Your task to perform on an android device: Search for a 3d printer on aliexpress Image 0: 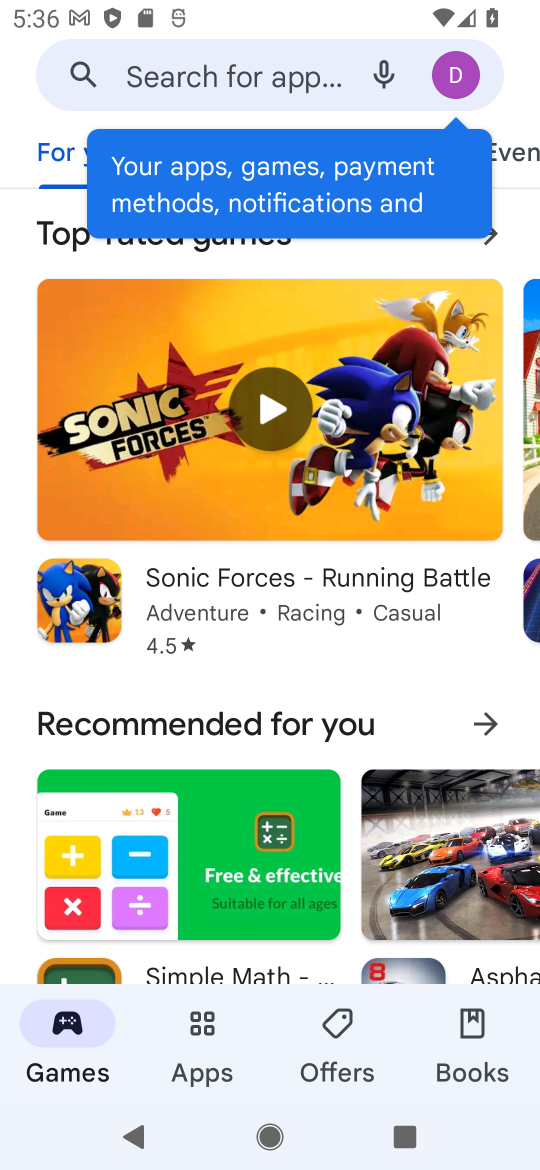
Step 0: press home button
Your task to perform on an android device: Search for a 3d printer on aliexpress Image 1: 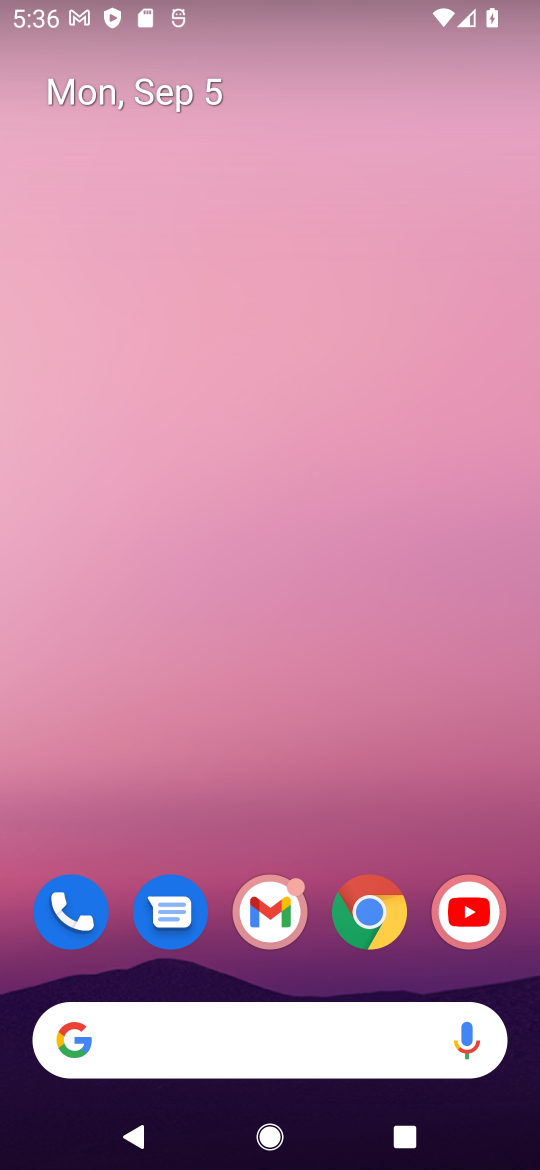
Step 1: click (381, 924)
Your task to perform on an android device: Search for a 3d printer on aliexpress Image 2: 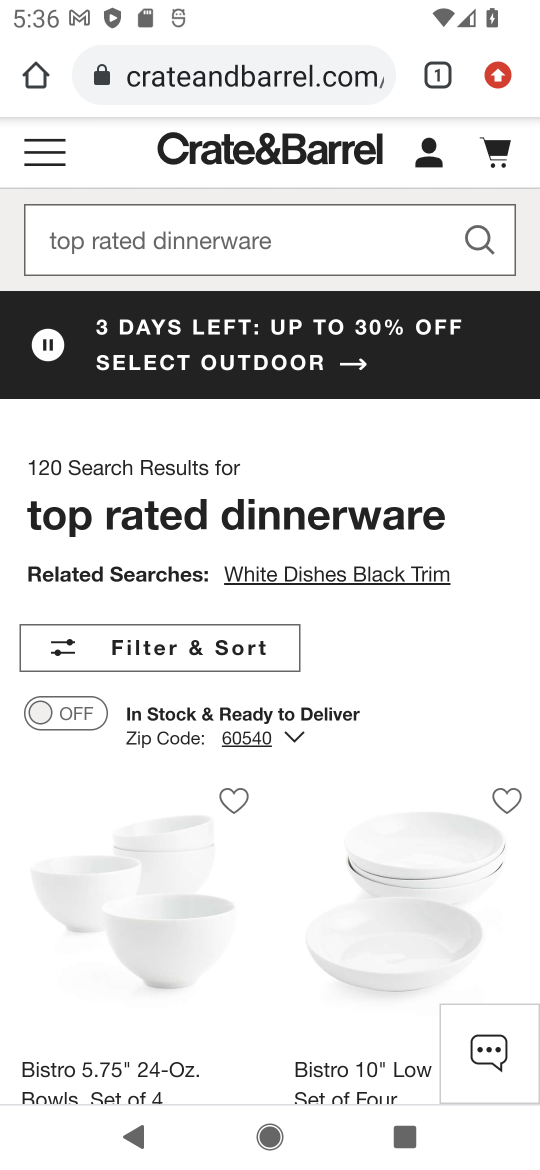
Step 2: click (283, 77)
Your task to perform on an android device: Search for a 3d printer on aliexpress Image 3: 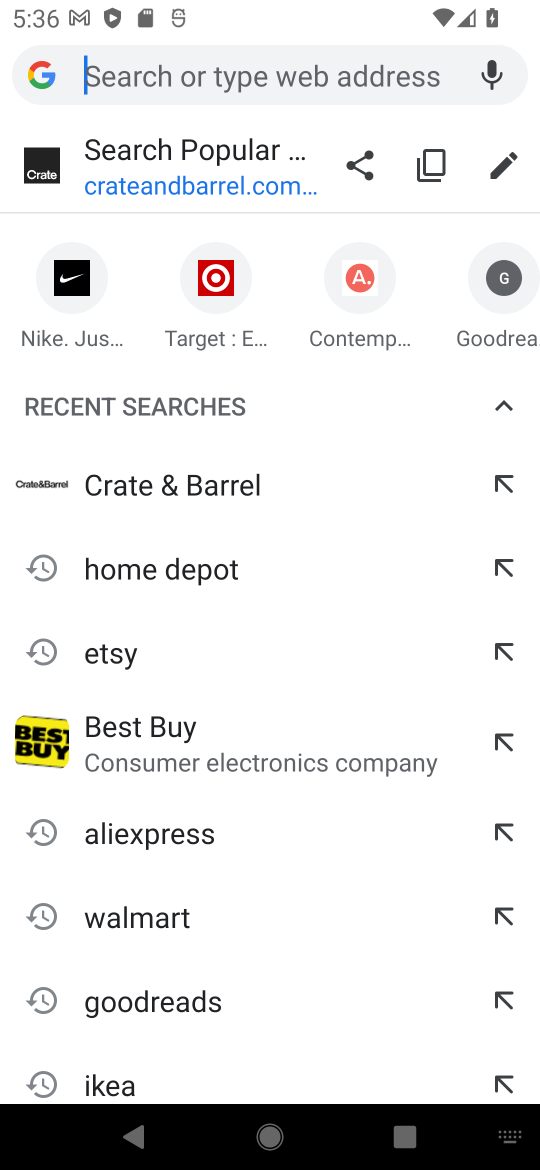
Step 3: type "aliexpress"
Your task to perform on an android device: Search for a 3d printer on aliexpress Image 4: 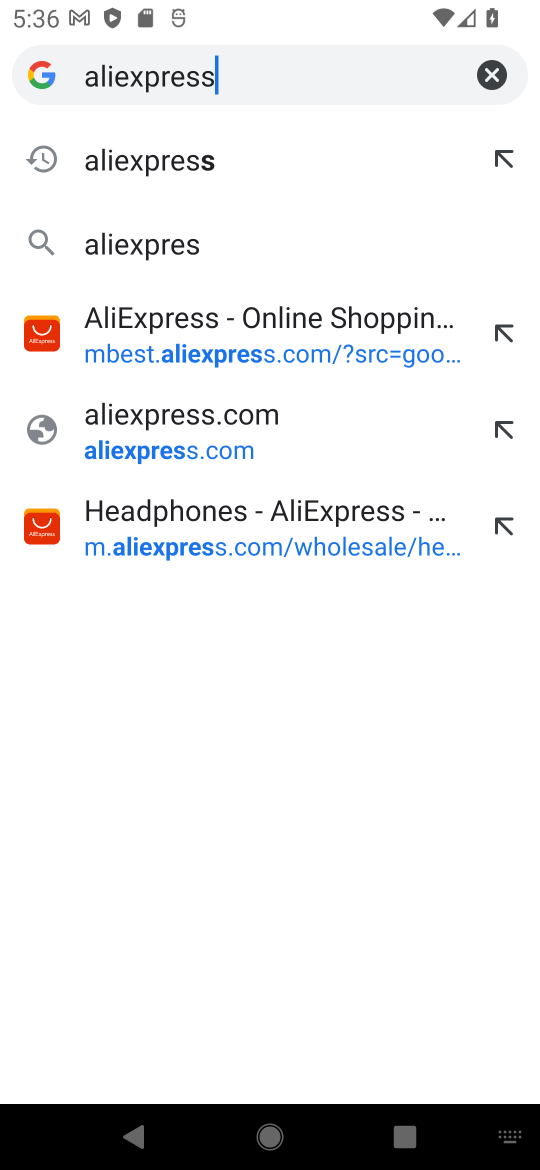
Step 4: type ""
Your task to perform on an android device: Search for a 3d printer on aliexpress Image 5: 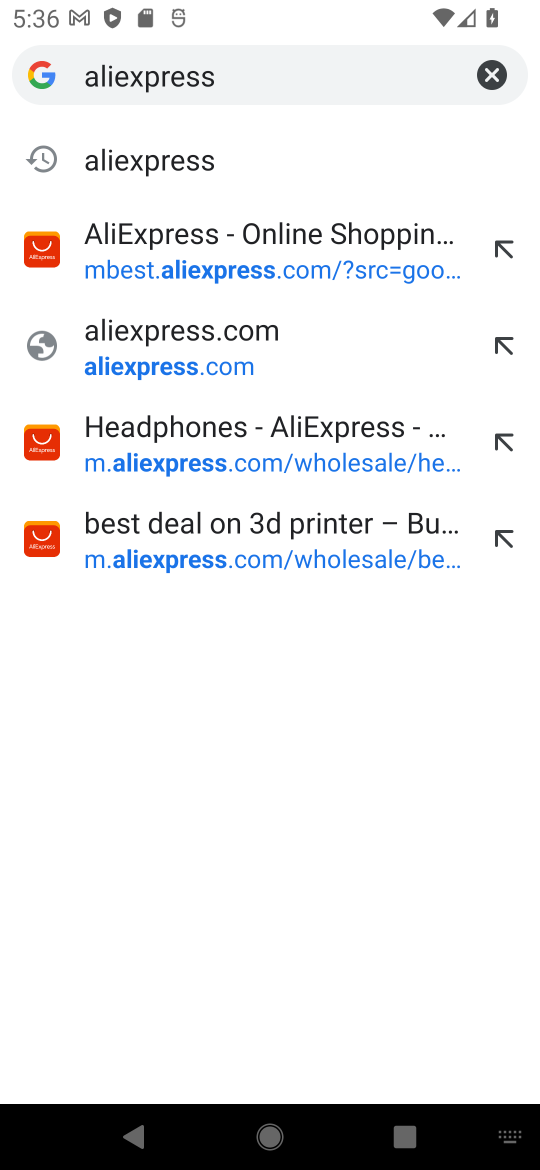
Step 5: click (264, 177)
Your task to perform on an android device: Search for a 3d printer on aliexpress Image 6: 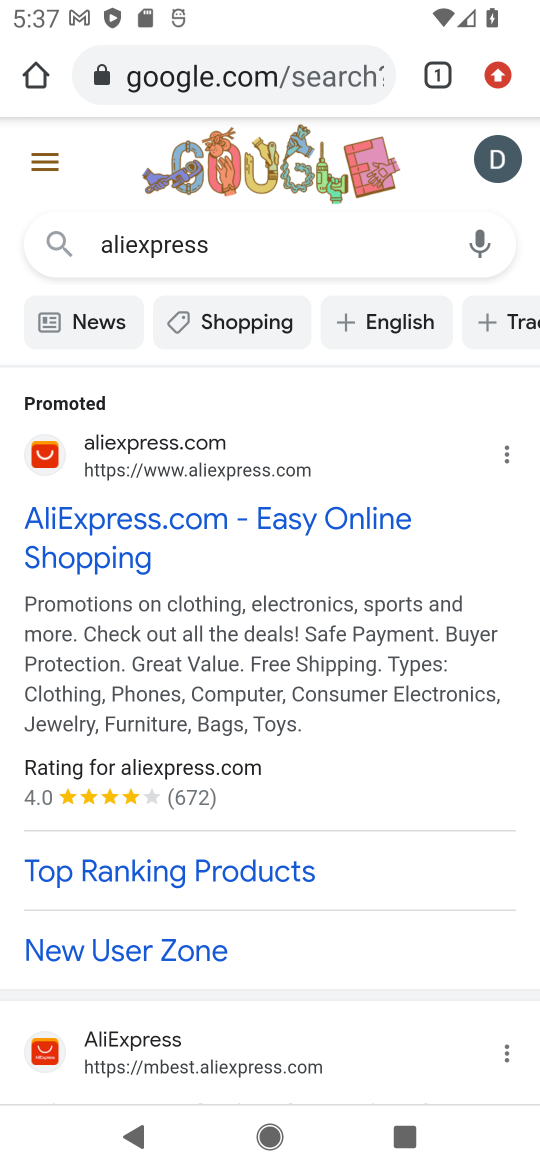
Step 6: click (123, 527)
Your task to perform on an android device: Search for a 3d printer on aliexpress Image 7: 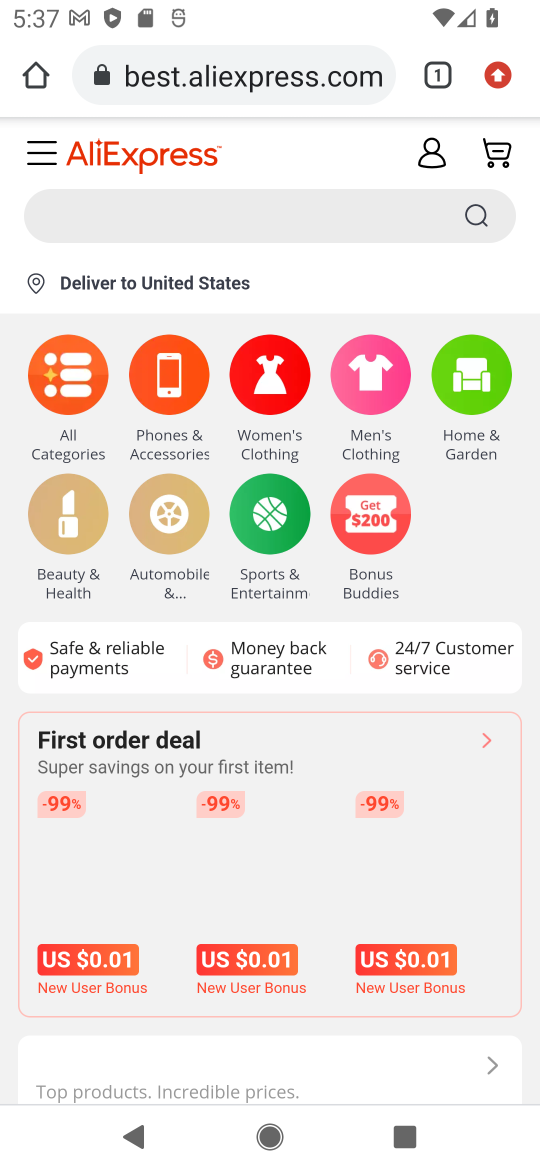
Step 7: click (270, 219)
Your task to perform on an android device: Search for a 3d printer on aliexpress Image 8: 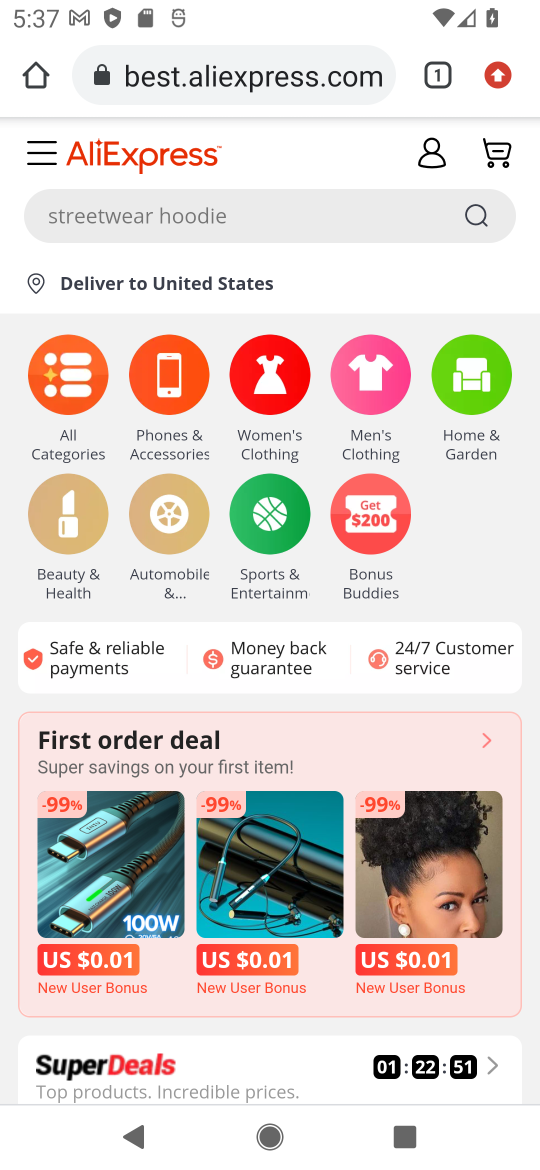
Step 8: click (270, 219)
Your task to perform on an android device: Search for a 3d printer on aliexpress Image 9: 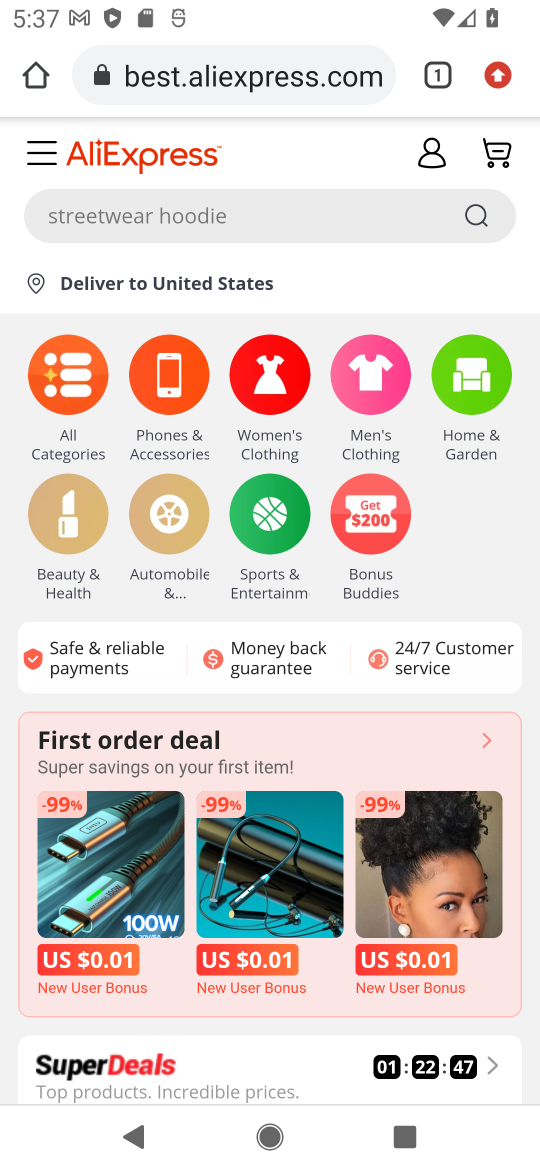
Step 9: click (289, 207)
Your task to perform on an android device: Search for a 3d printer on aliexpress Image 10: 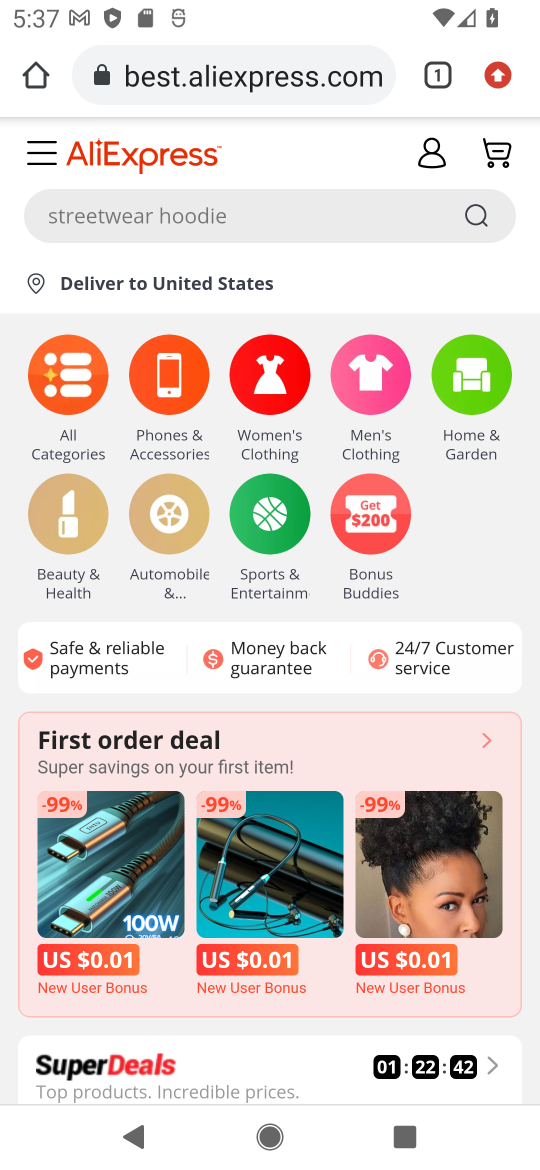
Step 10: click (353, 215)
Your task to perform on an android device: Search for a 3d printer on aliexpress Image 11: 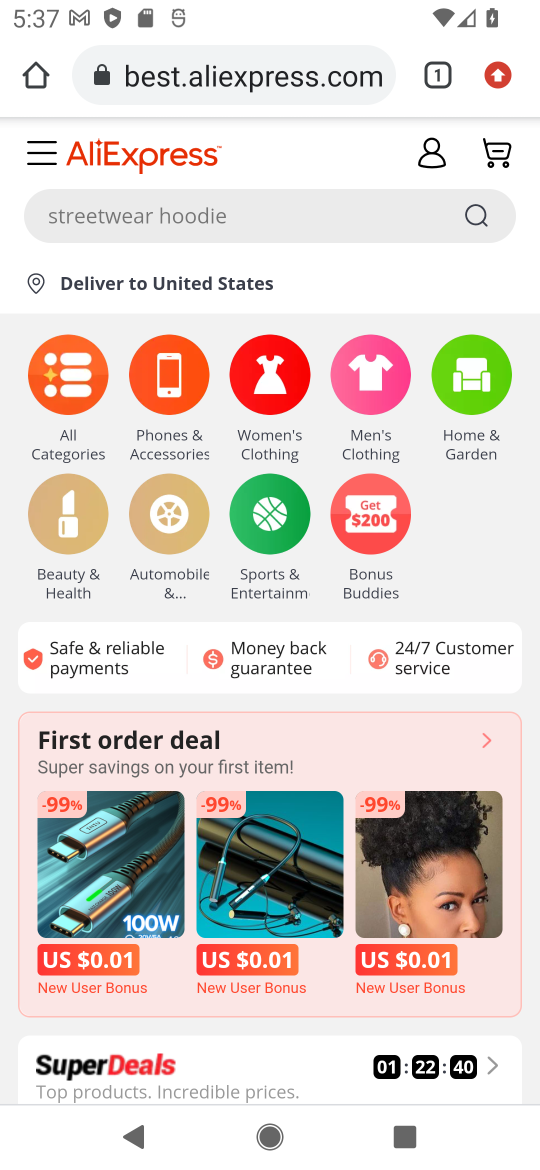
Step 11: drag from (396, 510) to (403, 595)
Your task to perform on an android device: Search for a 3d printer on aliexpress Image 12: 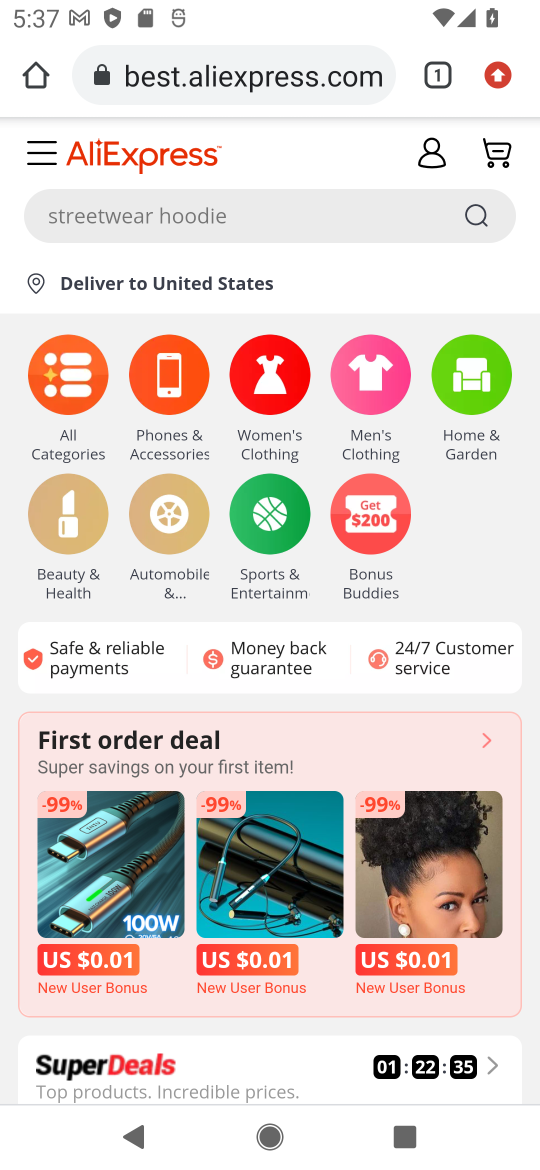
Step 12: click (358, 202)
Your task to perform on an android device: Search for a 3d printer on aliexpress Image 13: 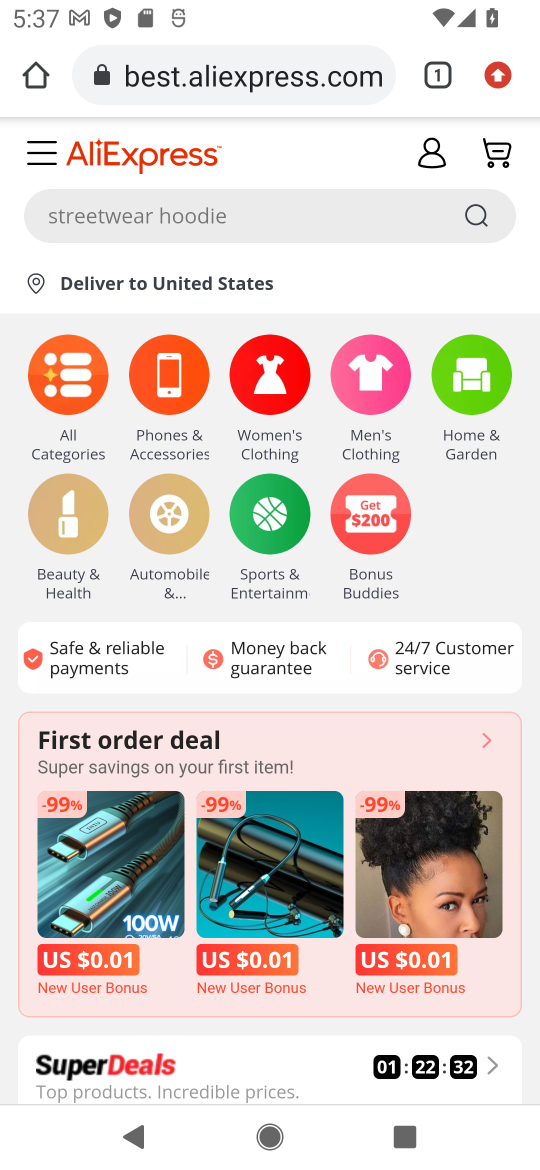
Step 13: click (65, 212)
Your task to perform on an android device: Search for a 3d printer on aliexpress Image 14: 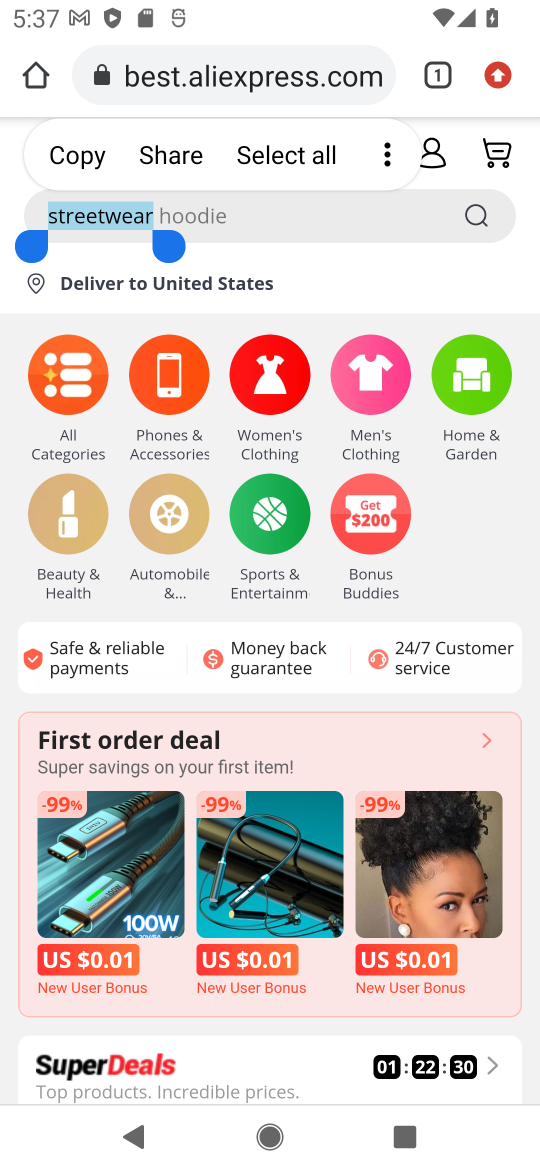
Step 14: click (250, 219)
Your task to perform on an android device: Search for a 3d printer on aliexpress Image 15: 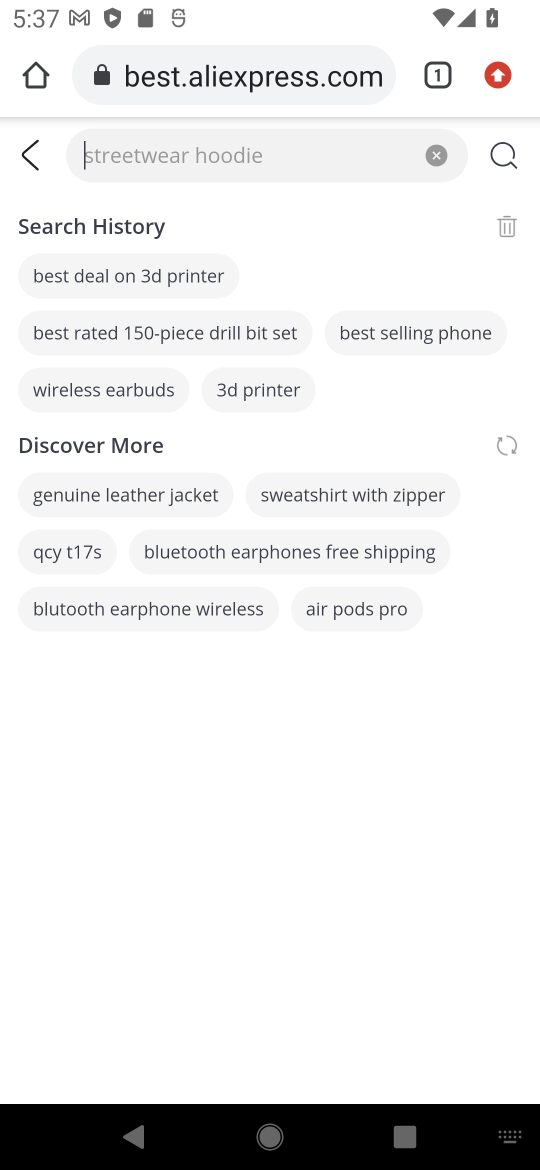
Step 15: type "3d printer"
Your task to perform on an android device: Search for a 3d printer on aliexpress Image 16: 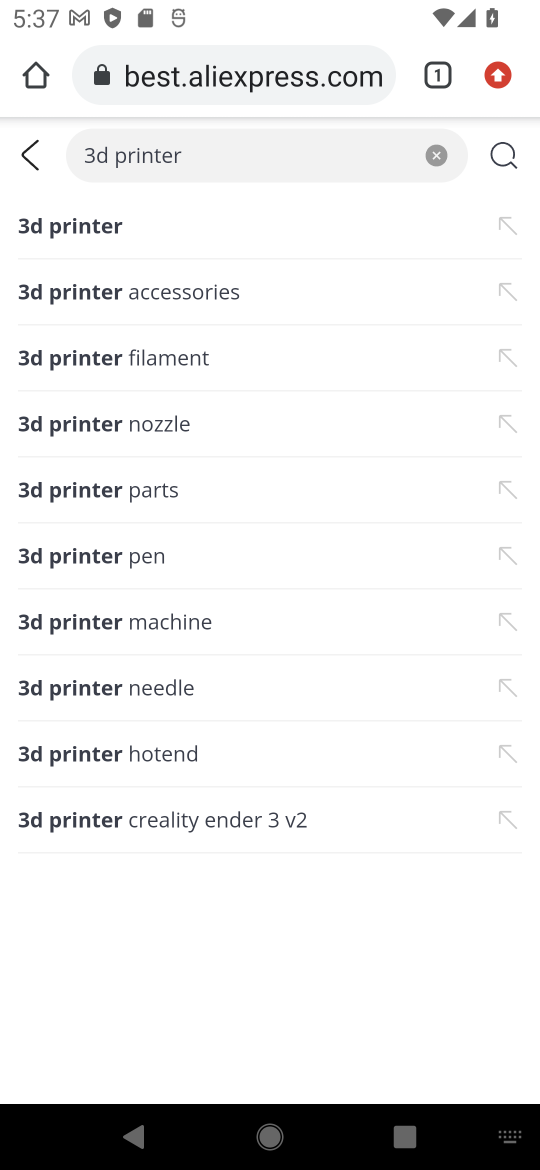
Step 16: type ""
Your task to perform on an android device: Search for a 3d printer on aliexpress Image 17: 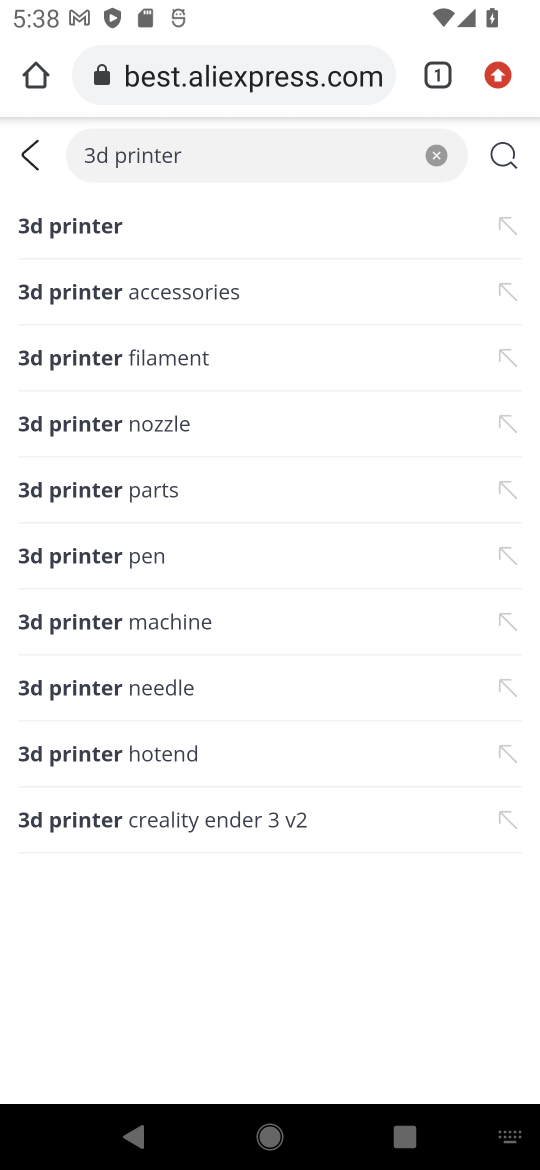
Step 17: press enter
Your task to perform on an android device: Search for a 3d printer on aliexpress Image 18: 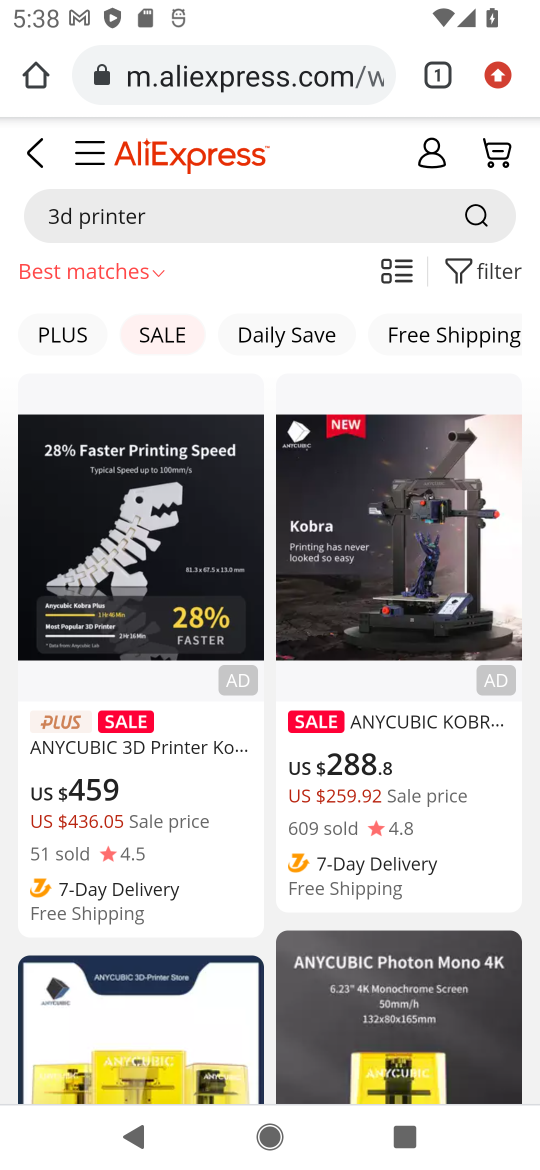
Step 18: task complete